Your task to perform on an android device: change your default location settings in chrome Image 0: 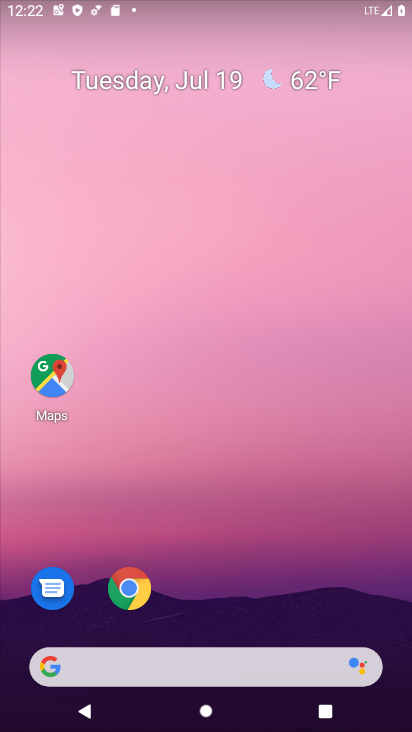
Step 0: click (138, 587)
Your task to perform on an android device: change your default location settings in chrome Image 1: 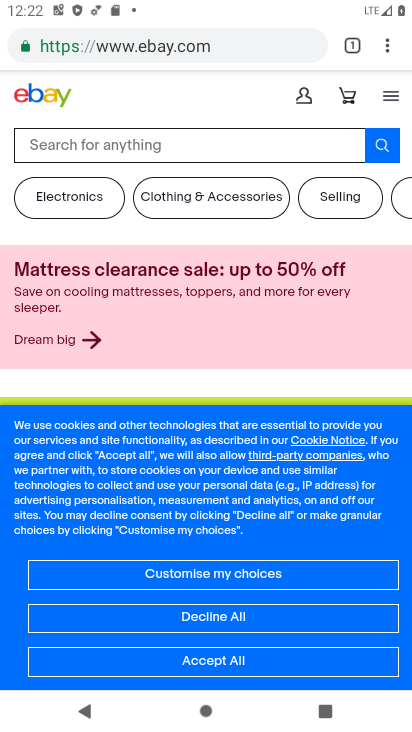
Step 1: click (383, 45)
Your task to perform on an android device: change your default location settings in chrome Image 2: 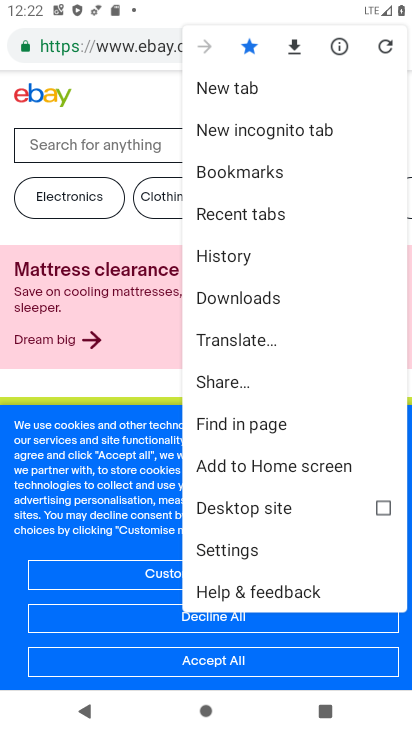
Step 2: click (229, 560)
Your task to perform on an android device: change your default location settings in chrome Image 3: 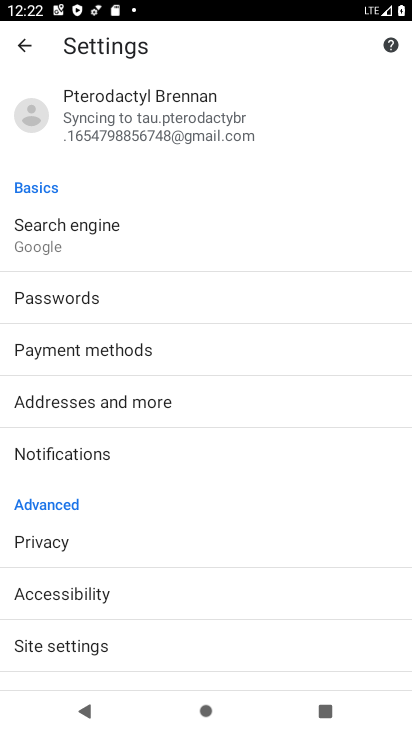
Step 3: click (162, 627)
Your task to perform on an android device: change your default location settings in chrome Image 4: 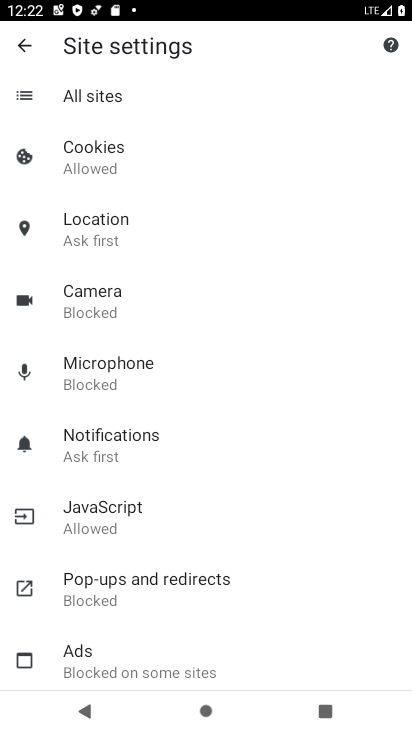
Step 4: click (102, 235)
Your task to perform on an android device: change your default location settings in chrome Image 5: 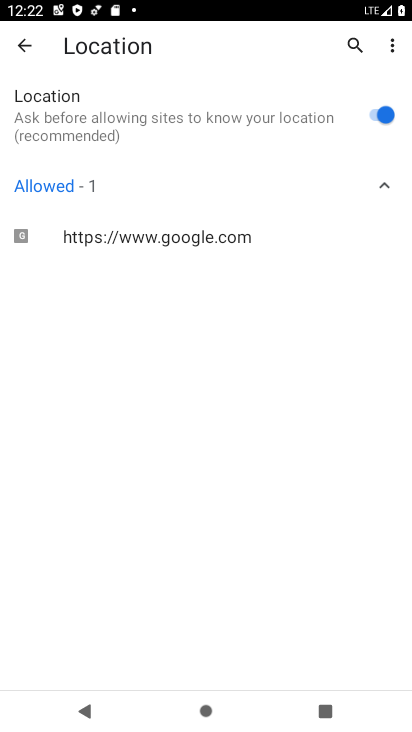
Step 5: click (374, 120)
Your task to perform on an android device: change your default location settings in chrome Image 6: 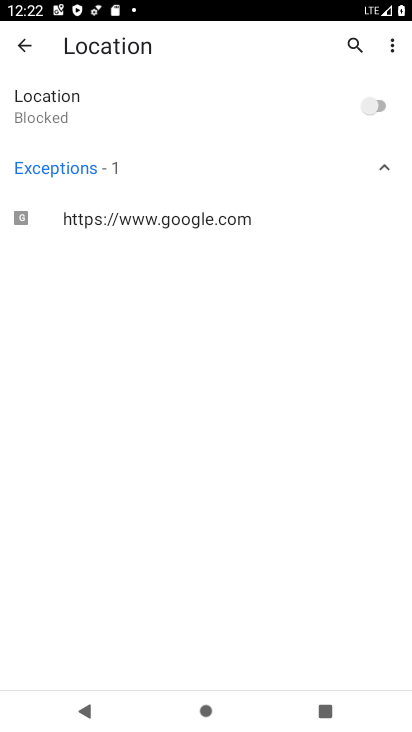
Step 6: task complete